Your task to perform on an android device: Go to network settings Image 0: 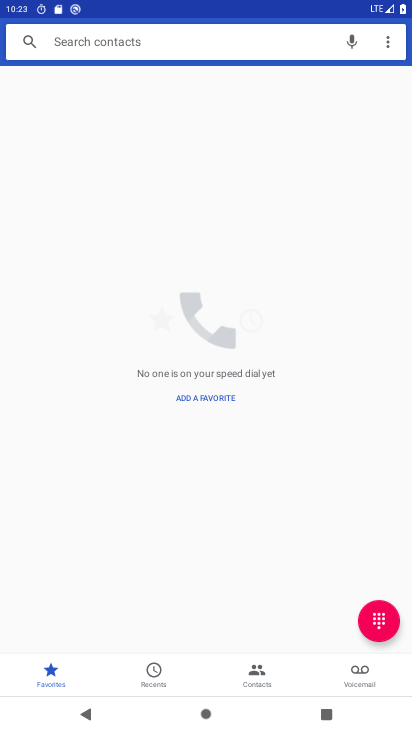
Step 0: press home button
Your task to perform on an android device: Go to network settings Image 1: 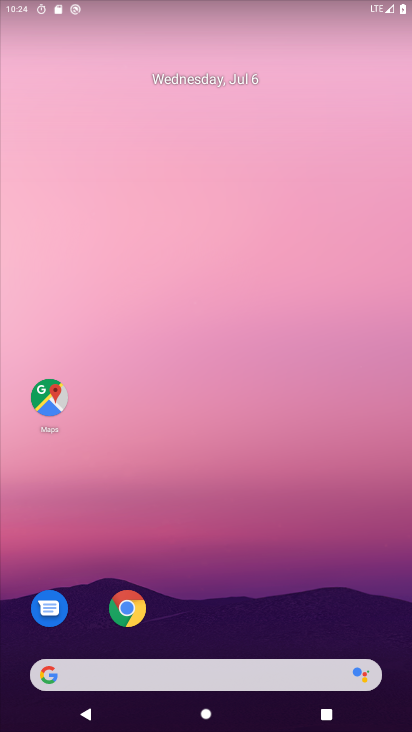
Step 1: drag from (222, 634) to (325, 5)
Your task to perform on an android device: Go to network settings Image 2: 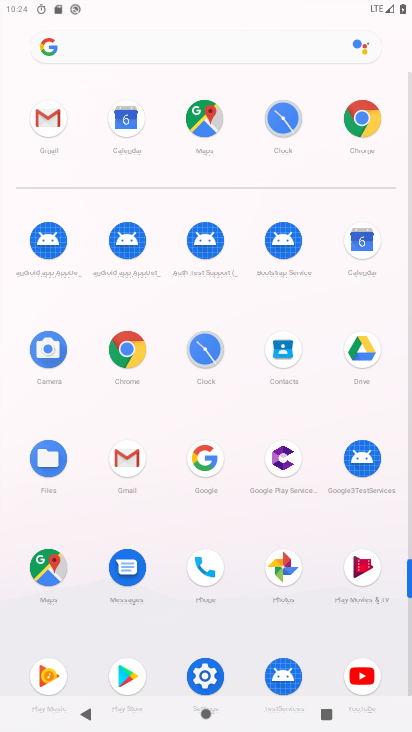
Step 2: click (213, 671)
Your task to perform on an android device: Go to network settings Image 3: 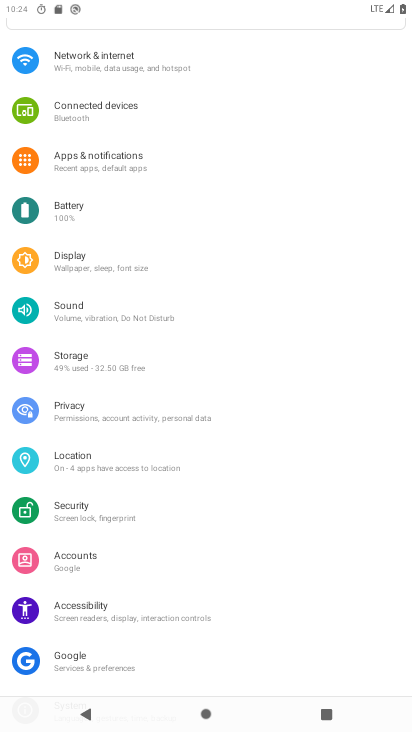
Step 3: click (130, 67)
Your task to perform on an android device: Go to network settings Image 4: 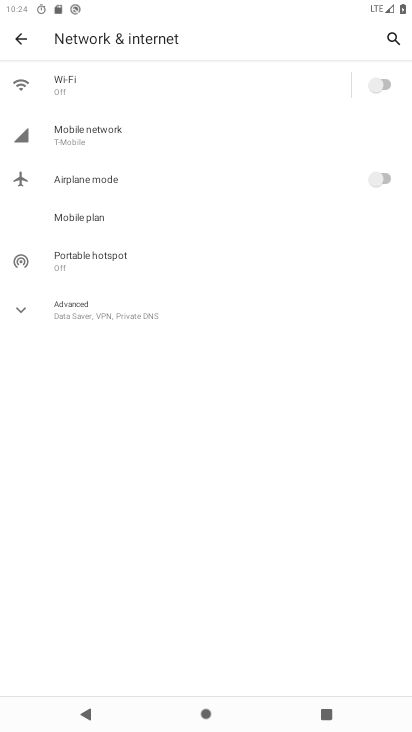
Step 4: task complete